Your task to perform on an android device: install app "Paramount+ | Peak Streaming" Image 0: 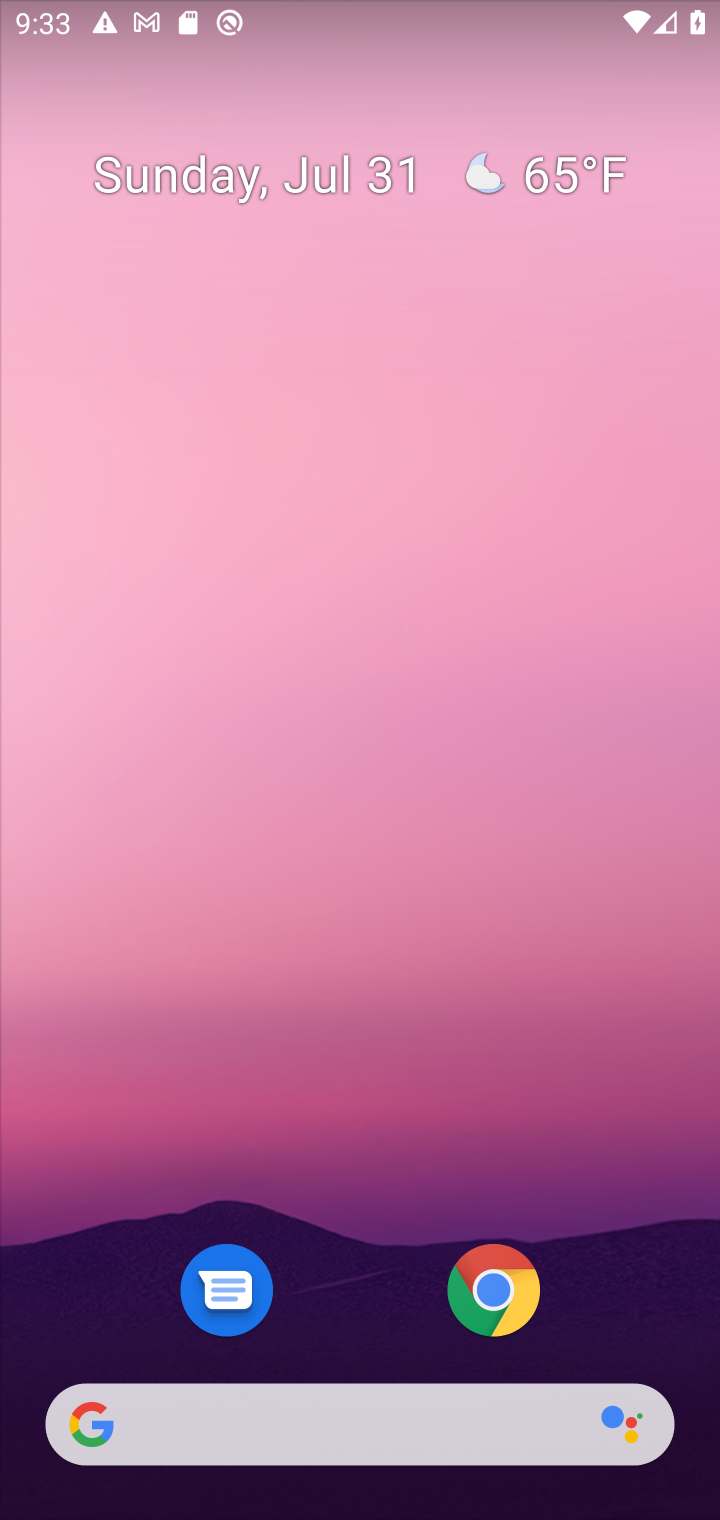
Step 0: drag from (614, 1257) to (561, 106)
Your task to perform on an android device: install app "Paramount+ | Peak Streaming" Image 1: 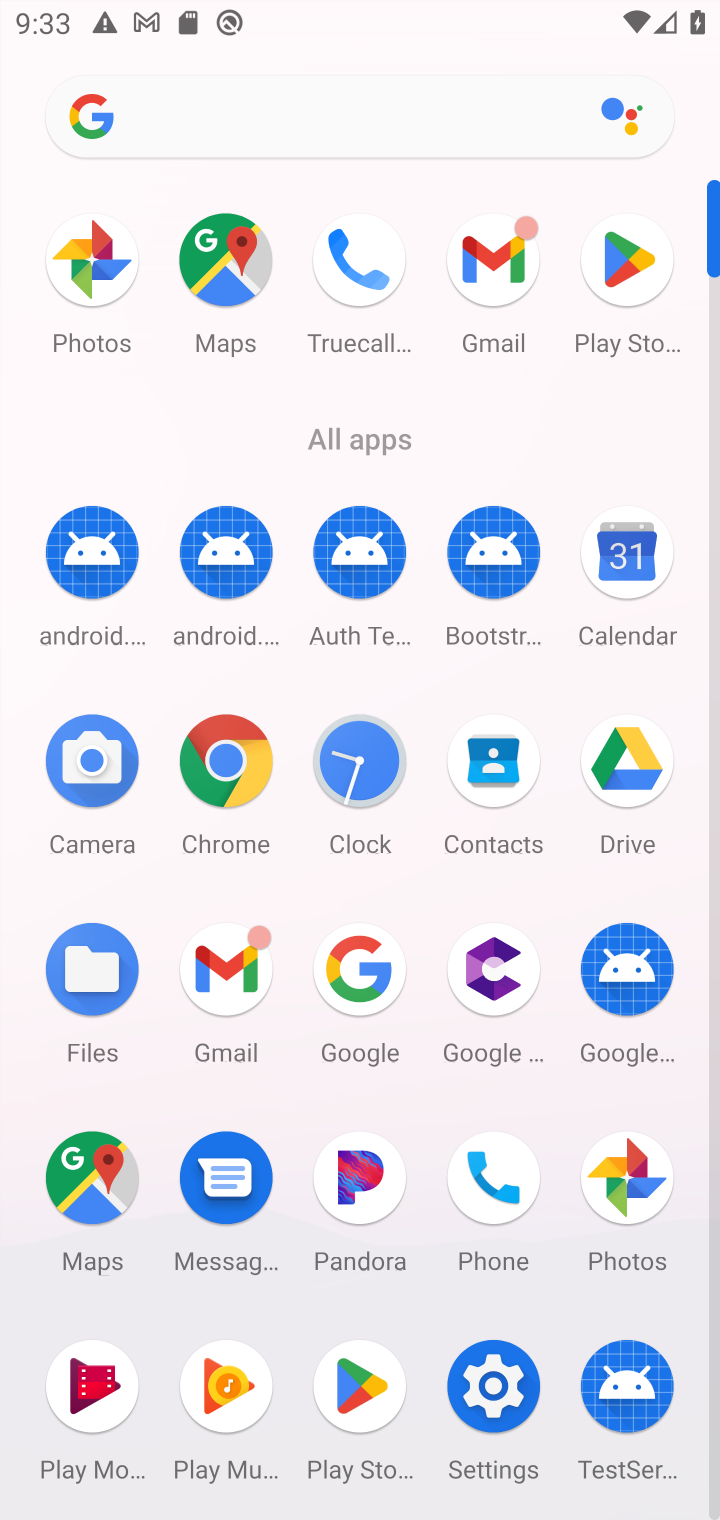
Step 1: click (628, 243)
Your task to perform on an android device: install app "Paramount+ | Peak Streaming" Image 2: 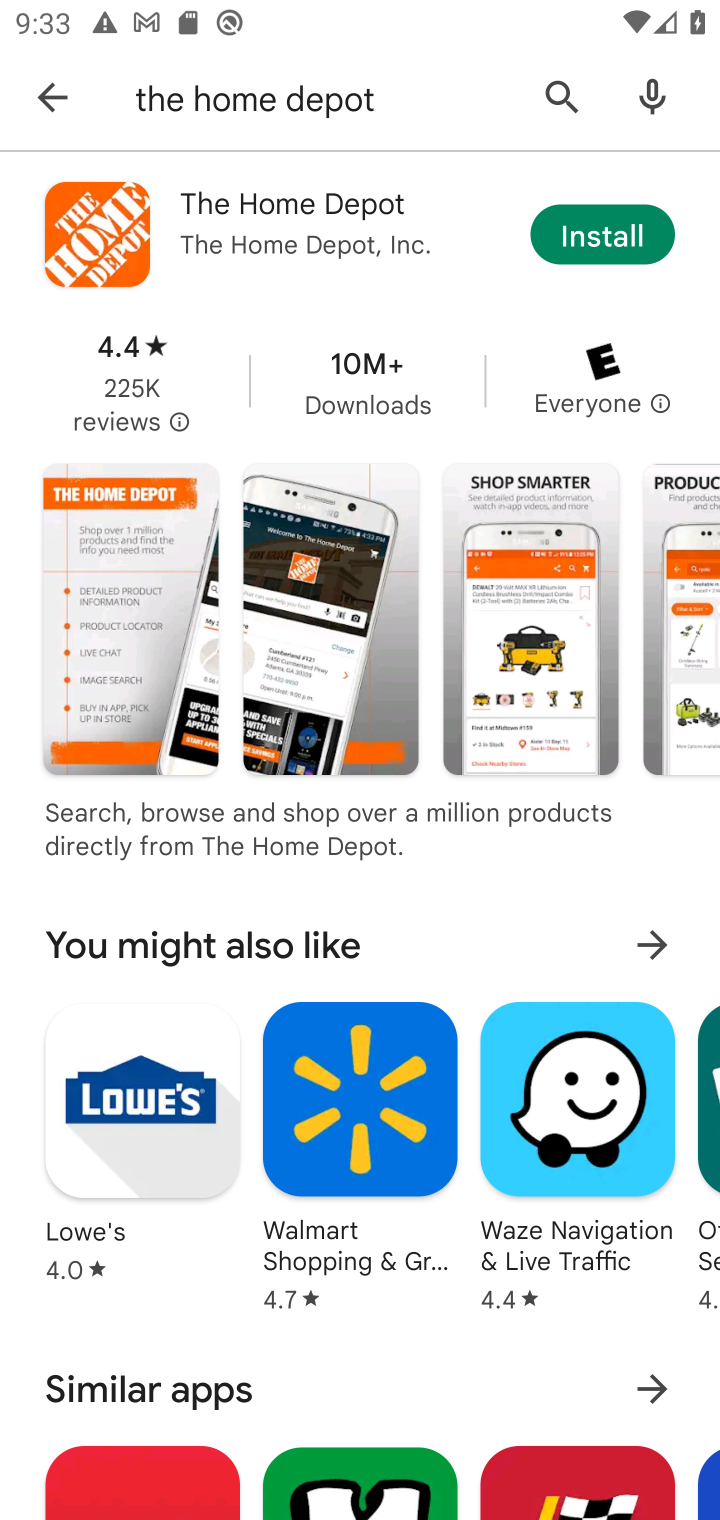
Step 2: press back button
Your task to perform on an android device: install app "Paramount+ | Peak Streaming" Image 3: 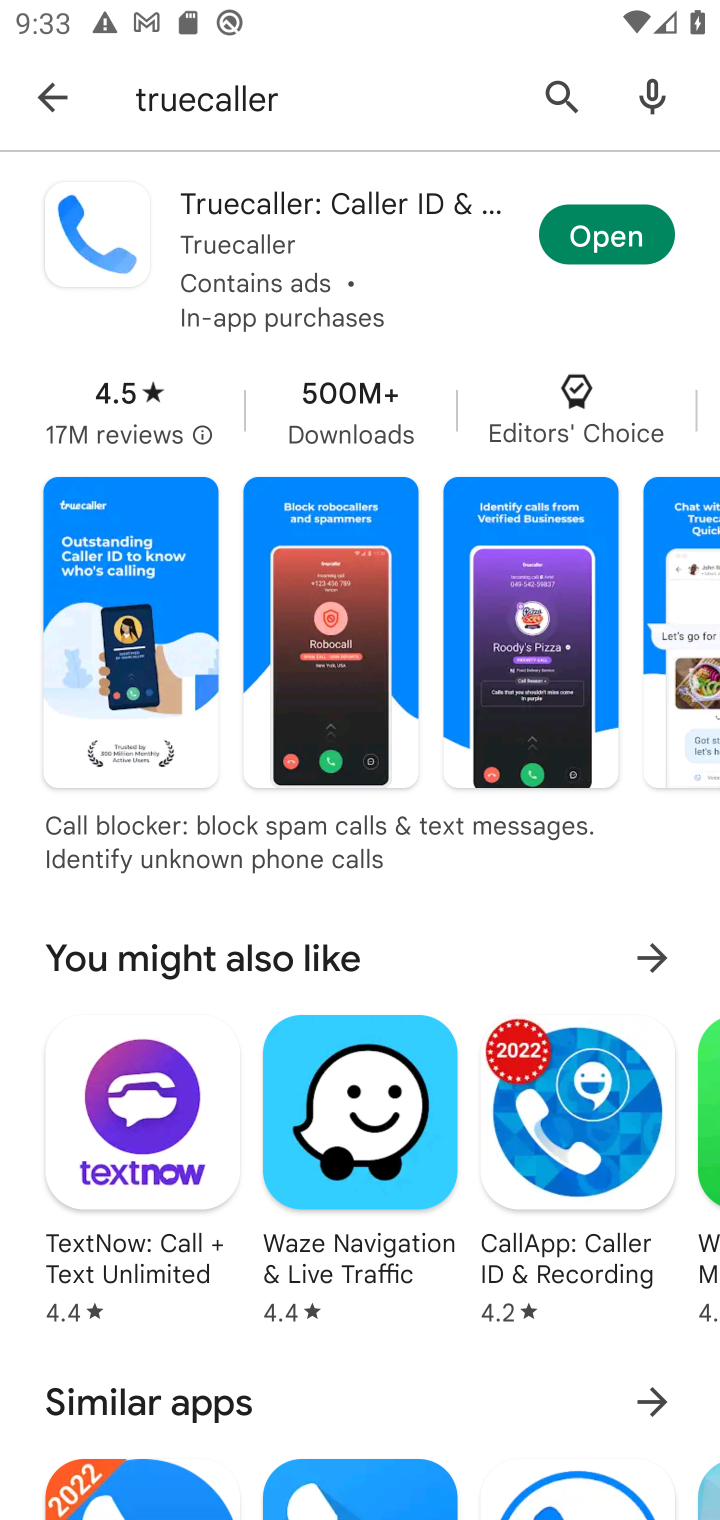
Step 3: click (545, 88)
Your task to perform on an android device: install app "Paramount+ | Peak Streaming" Image 4: 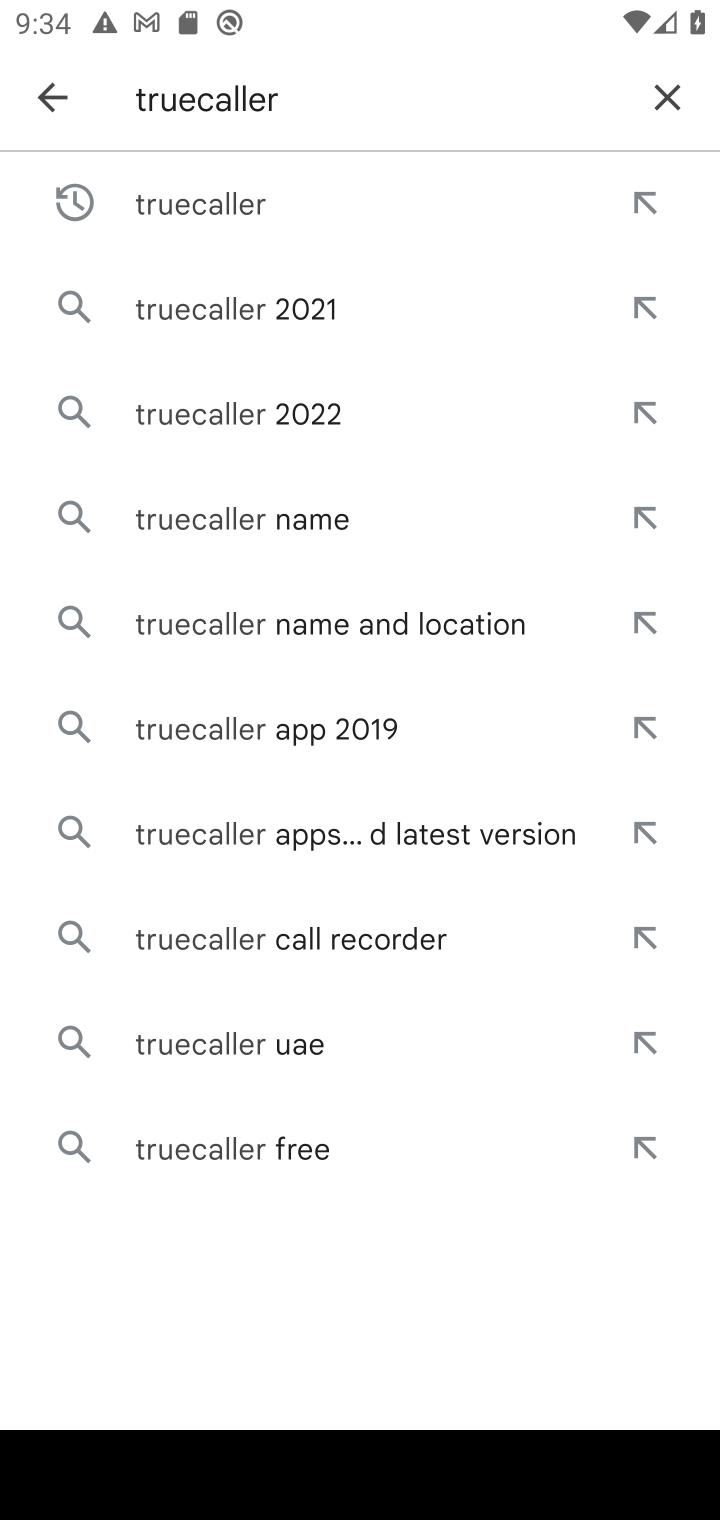
Step 4: click (667, 85)
Your task to perform on an android device: install app "Paramount+ | Peak Streaming" Image 5: 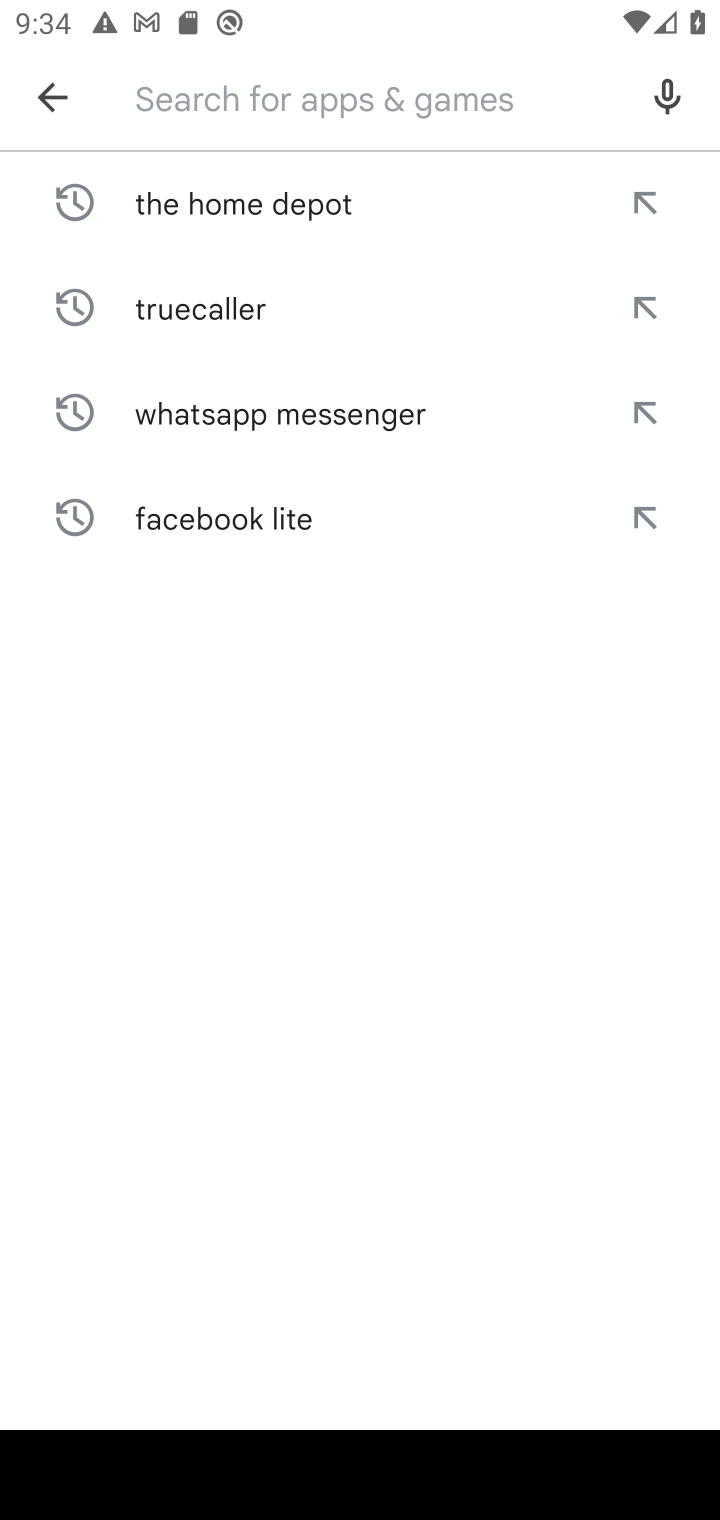
Step 5: click (321, 106)
Your task to perform on an android device: install app "Paramount+ | Peak Streaming" Image 6: 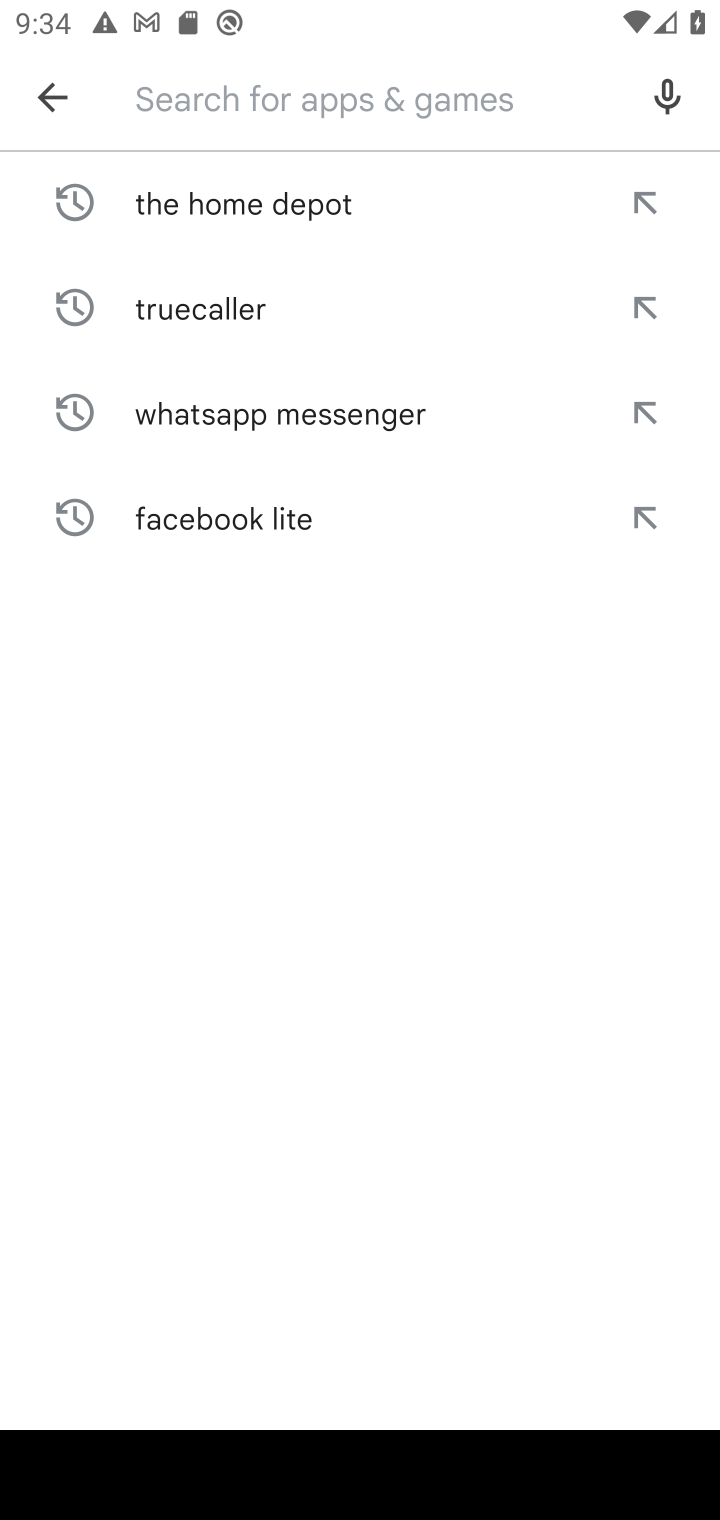
Step 6: type "Paramount+ | Peak Streaming"
Your task to perform on an android device: install app "Paramount+ | Peak Streaming" Image 7: 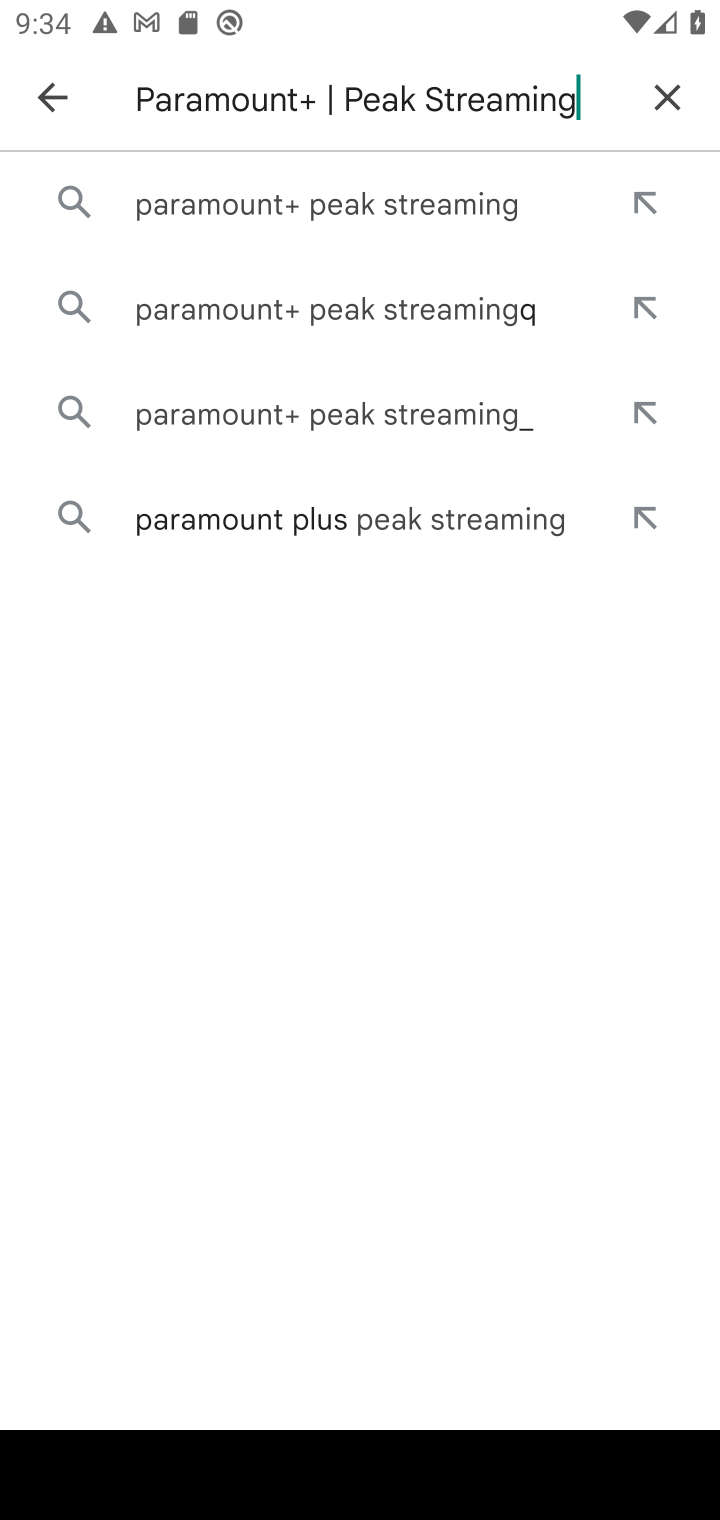
Step 7: click (351, 191)
Your task to perform on an android device: install app "Paramount+ | Peak Streaming" Image 8: 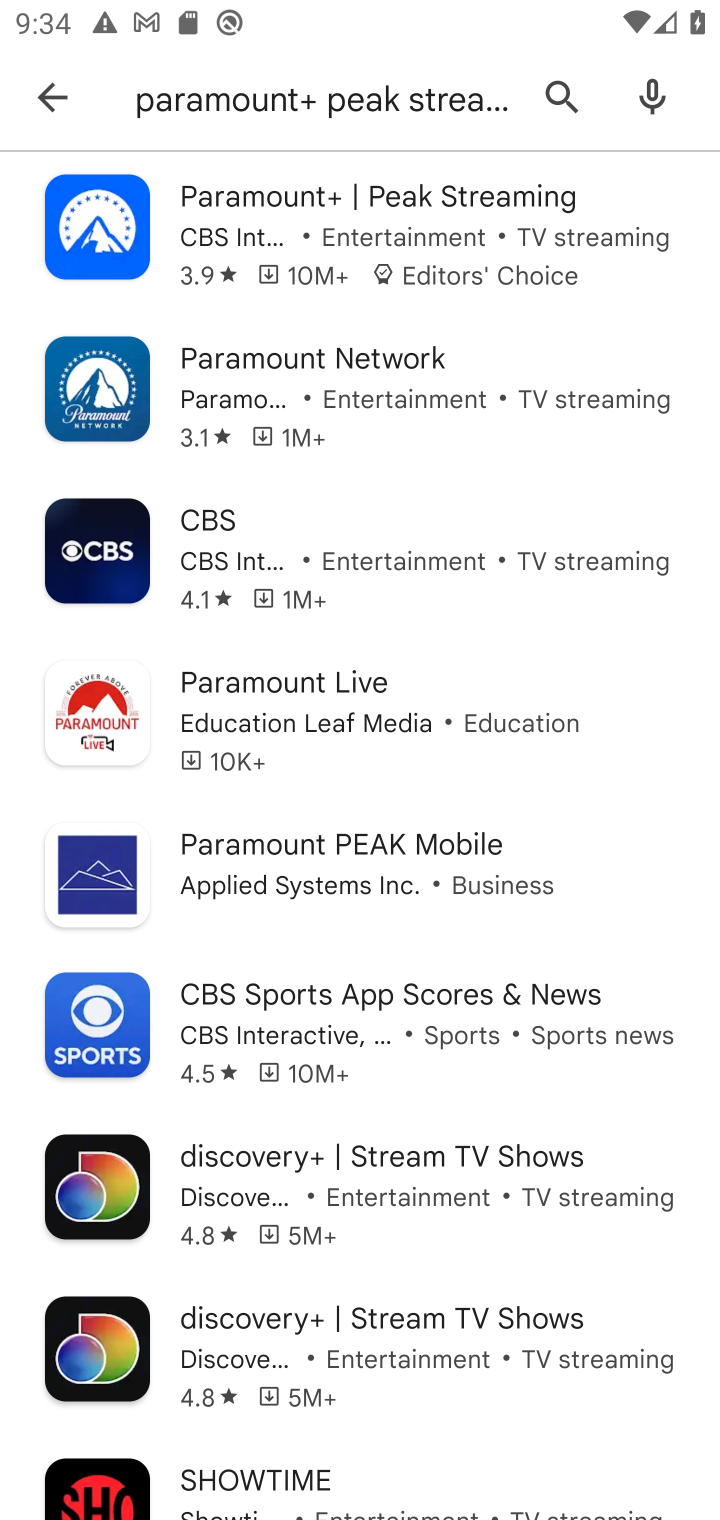
Step 8: click (369, 228)
Your task to perform on an android device: install app "Paramount+ | Peak Streaming" Image 9: 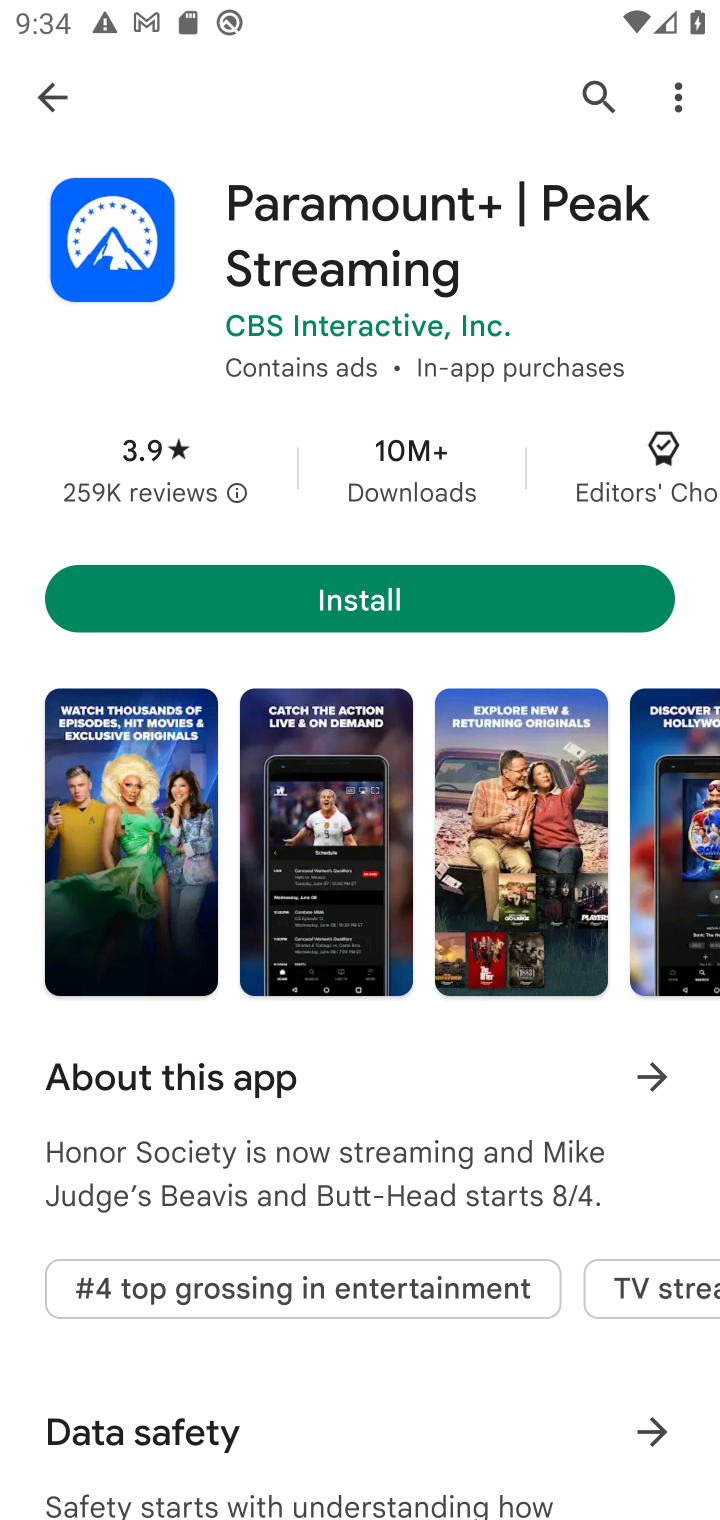
Step 9: click (326, 597)
Your task to perform on an android device: install app "Paramount+ | Peak Streaming" Image 10: 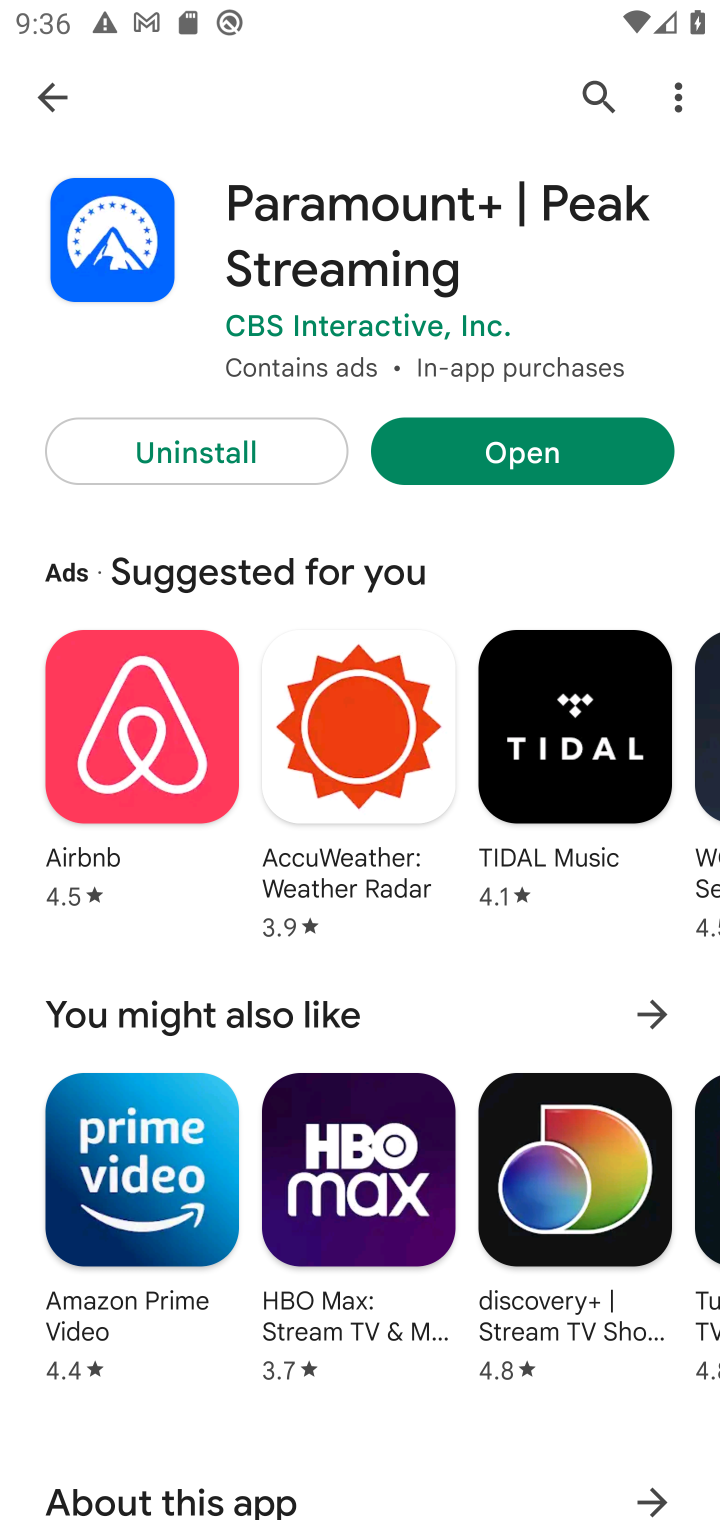
Step 10: task complete